Your task to perform on an android device: check android version Image 0: 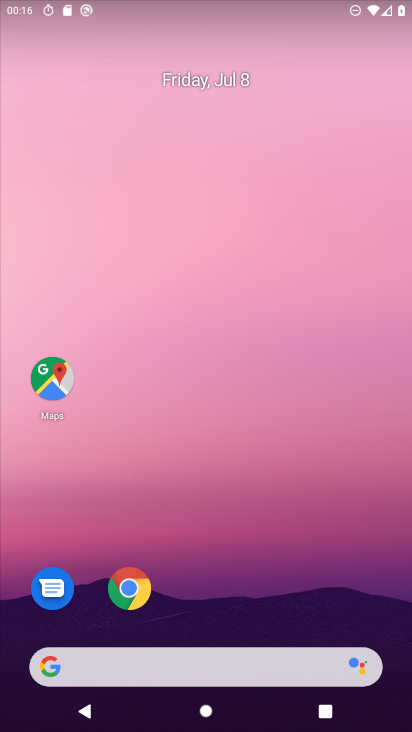
Step 0: drag from (303, 560) to (249, 58)
Your task to perform on an android device: check android version Image 1: 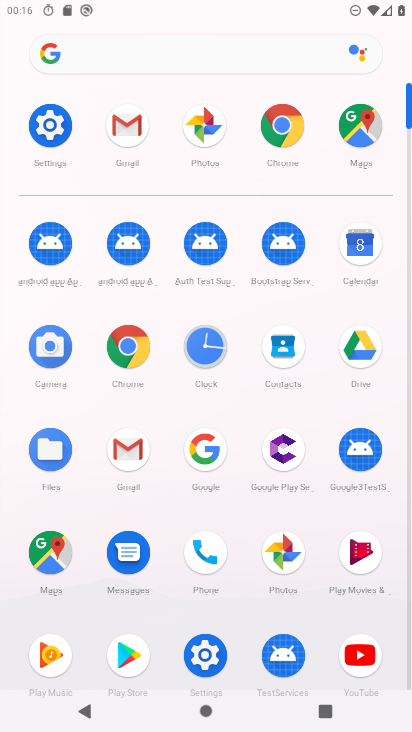
Step 1: click (59, 127)
Your task to perform on an android device: check android version Image 2: 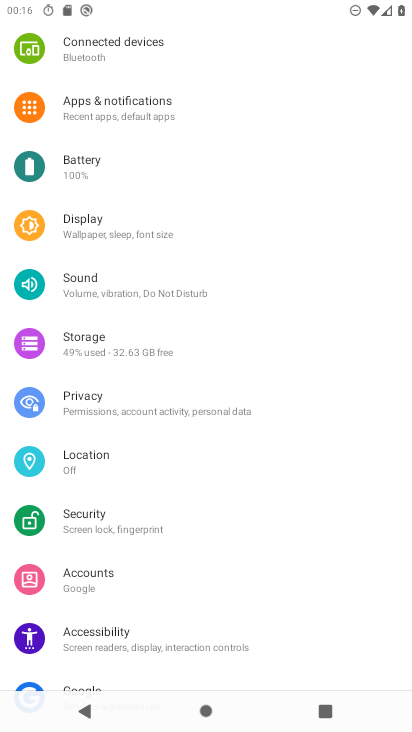
Step 2: drag from (199, 580) to (307, 115)
Your task to perform on an android device: check android version Image 3: 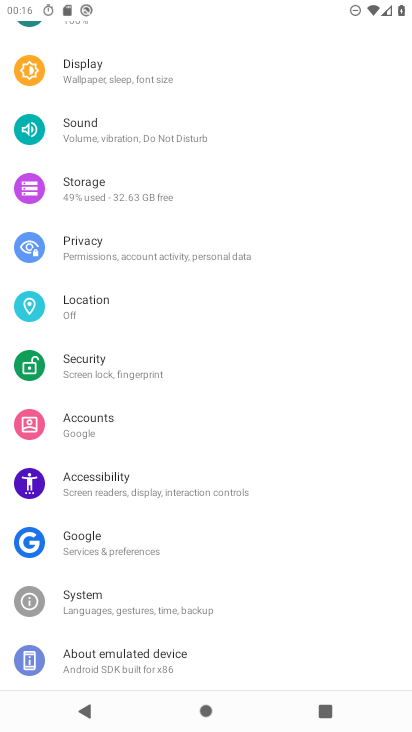
Step 3: click (146, 650)
Your task to perform on an android device: check android version Image 4: 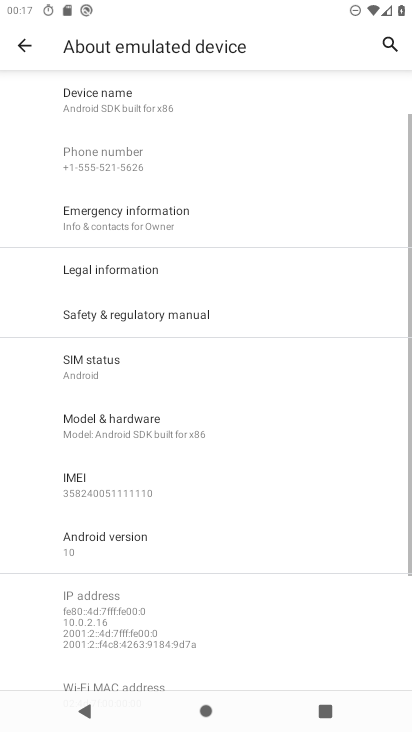
Step 4: click (145, 544)
Your task to perform on an android device: check android version Image 5: 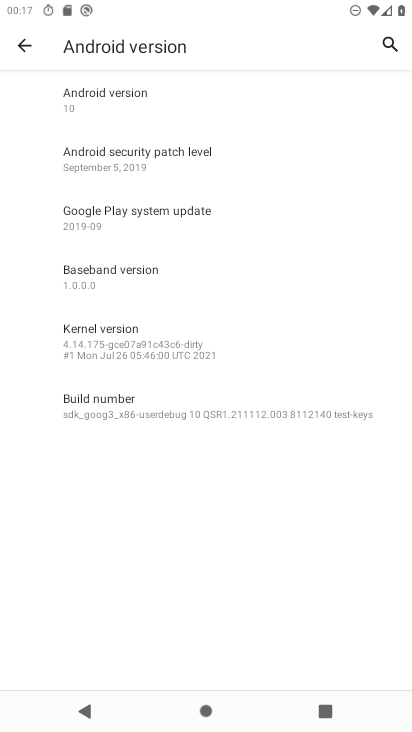
Step 5: task complete